Your task to perform on an android device: open a new tab in the chrome app Image 0: 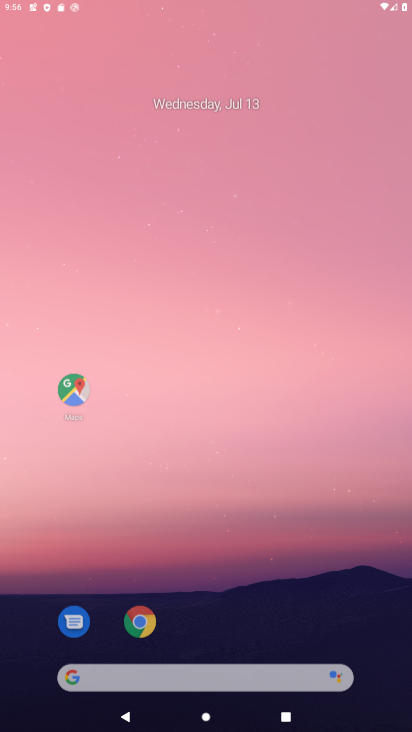
Step 0: press home button
Your task to perform on an android device: open a new tab in the chrome app Image 1: 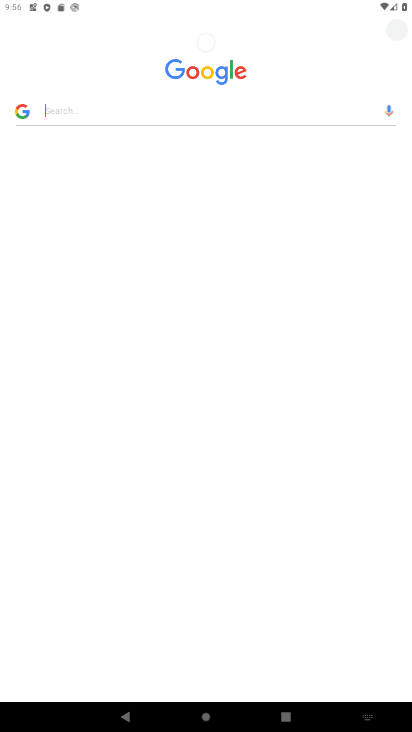
Step 1: drag from (216, 285) to (216, 98)
Your task to perform on an android device: open a new tab in the chrome app Image 2: 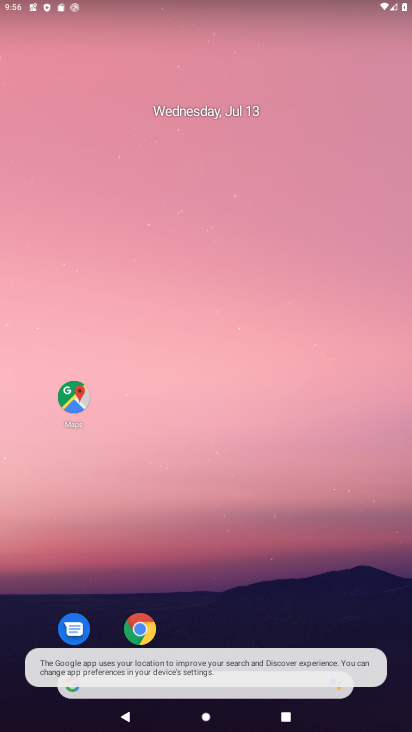
Step 2: click (136, 623)
Your task to perform on an android device: open a new tab in the chrome app Image 3: 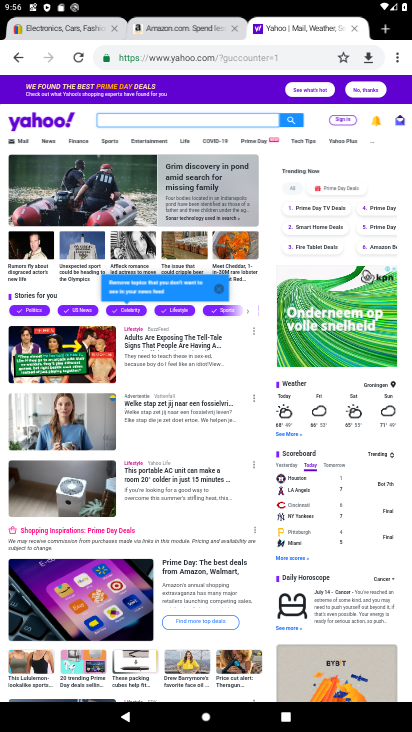
Step 3: click (381, 28)
Your task to perform on an android device: open a new tab in the chrome app Image 4: 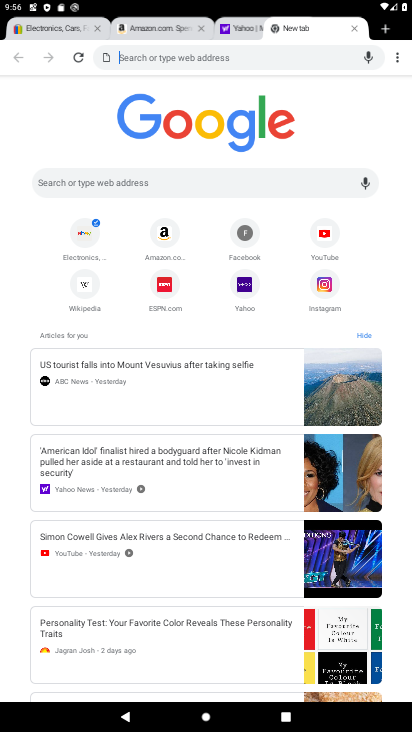
Step 4: task complete